Your task to perform on an android device: Show me the alarms in the clock app Image 0: 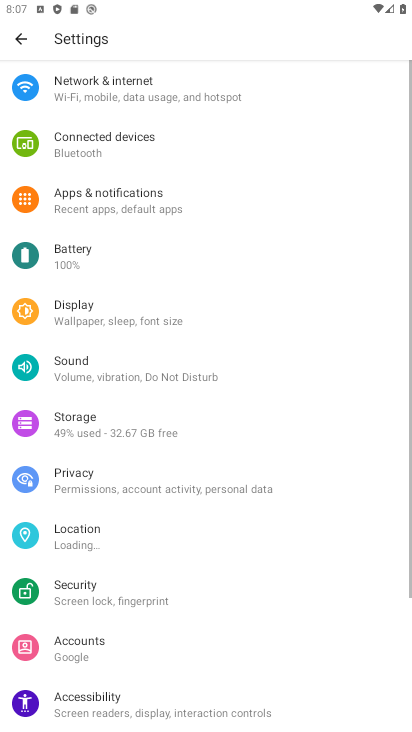
Step 0: press home button
Your task to perform on an android device: Show me the alarms in the clock app Image 1: 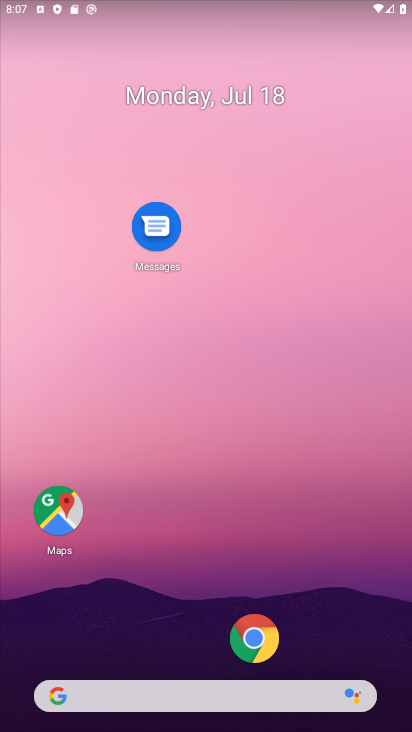
Step 1: drag from (209, 645) to (237, 60)
Your task to perform on an android device: Show me the alarms in the clock app Image 2: 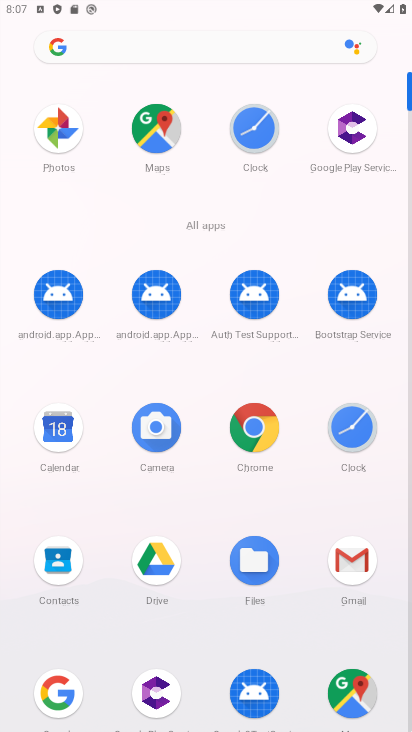
Step 2: click (345, 417)
Your task to perform on an android device: Show me the alarms in the clock app Image 3: 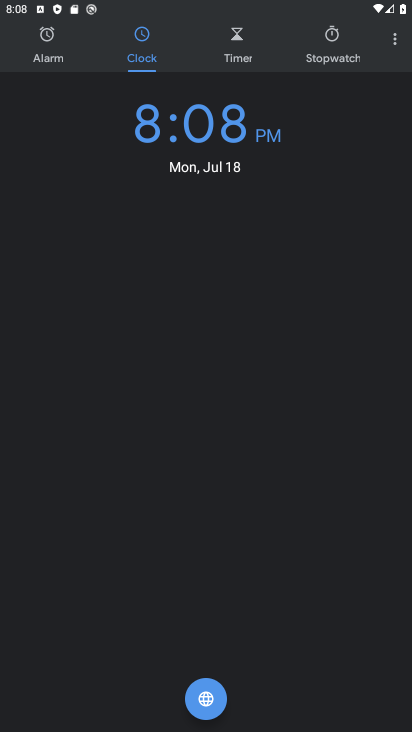
Step 3: click (54, 44)
Your task to perform on an android device: Show me the alarms in the clock app Image 4: 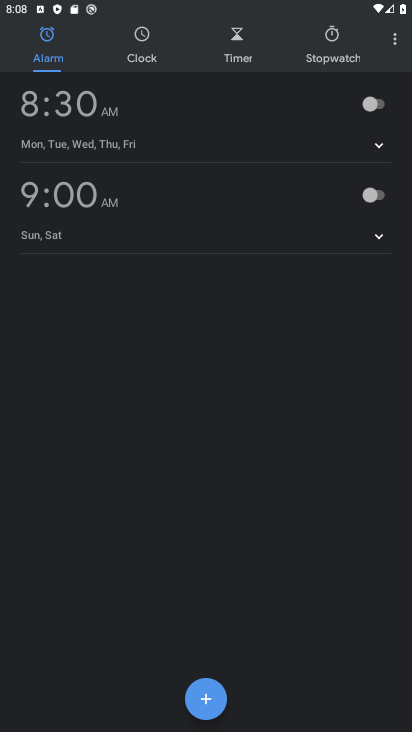
Step 4: click (371, 101)
Your task to perform on an android device: Show me the alarms in the clock app Image 5: 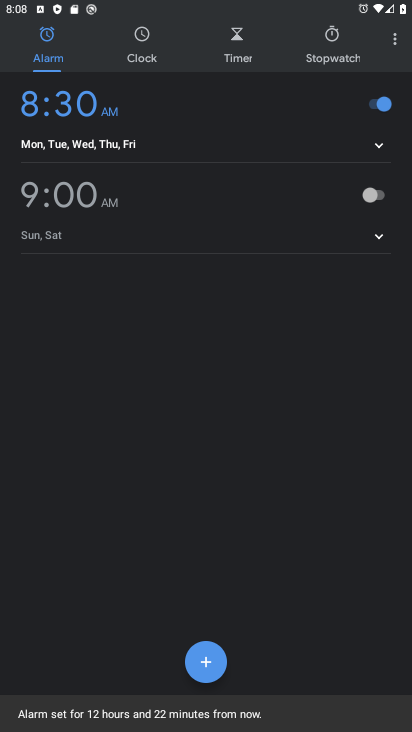
Step 5: click (375, 203)
Your task to perform on an android device: Show me the alarms in the clock app Image 6: 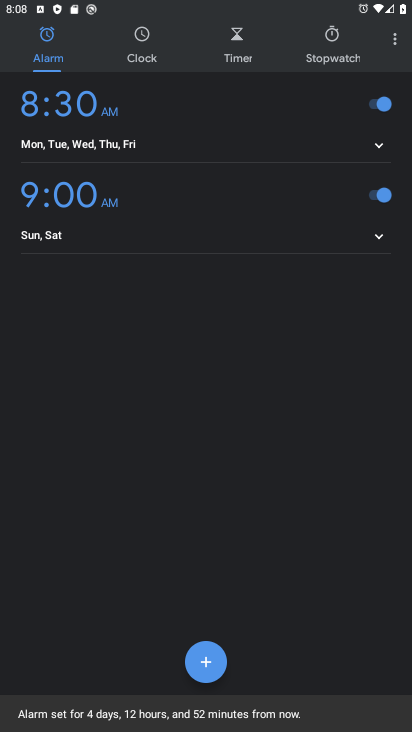
Step 6: task complete